Your task to perform on an android device: Open the Play Movies app and select the watchlist tab. Image 0: 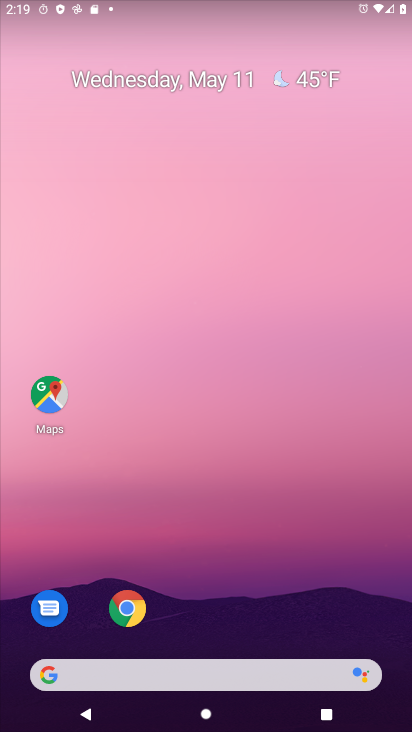
Step 0: drag from (214, 601) to (196, 88)
Your task to perform on an android device: Open the Play Movies app and select the watchlist tab. Image 1: 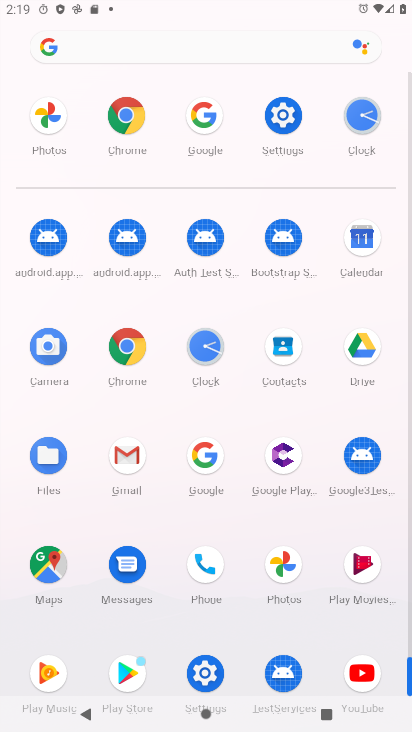
Step 1: click (353, 547)
Your task to perform on an android device: Open the Play Movies app and select the watchlist tab. Image 2: 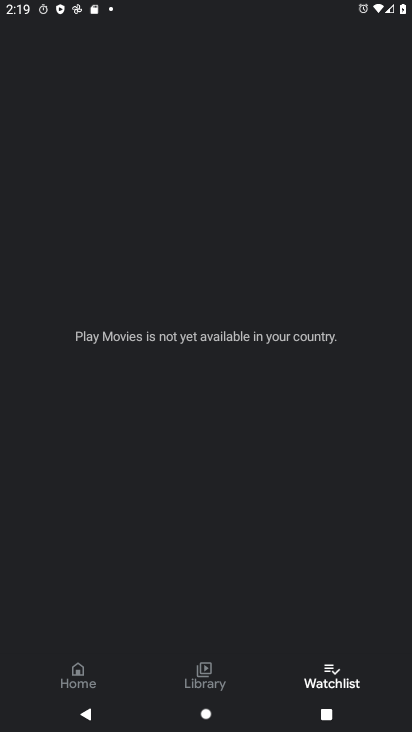
Step 2: task complete